Your task to perform on an android device: Open Youtube and go to "Your channel" Image 0: 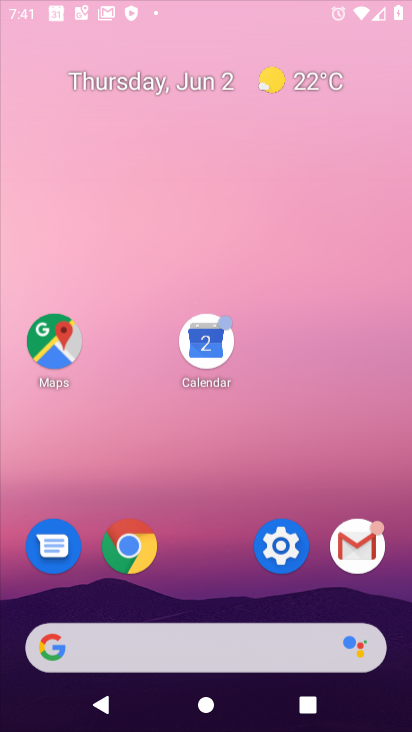
Step 0: click (271, 544)
Your task to perform on an android device: Open Youtube and go to "Your channel" Image 1: 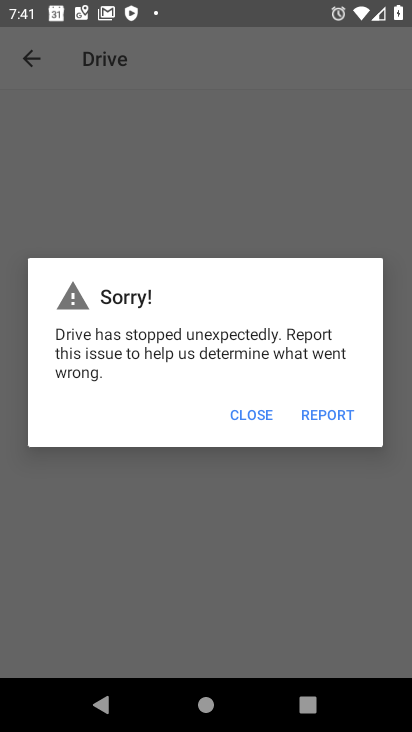
Step 1: press home button
Your task to perform on an android device: Open Youtube and go to "Your channel" Image 2: 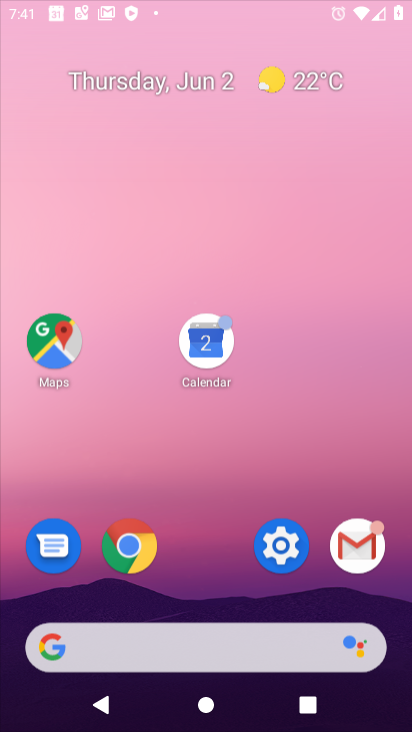
Step 2: press home button
Your task to perform on an android device: Open Youtube and go to "Your channel" Image 3: 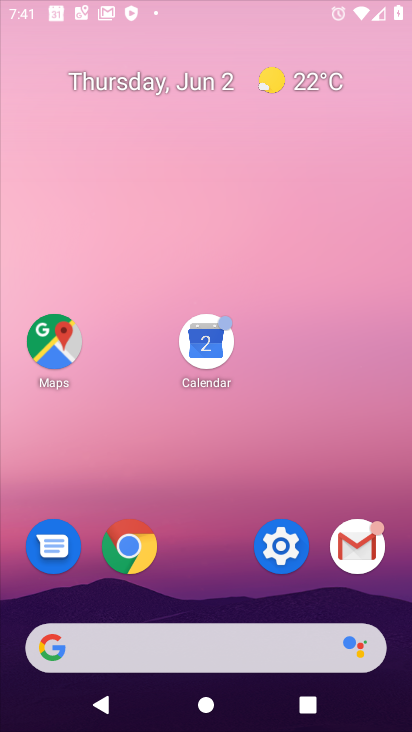
Step 3: click (254, 412)
Your task to perform on an android device: Open Youtube and go to "Your channel" Image 4: 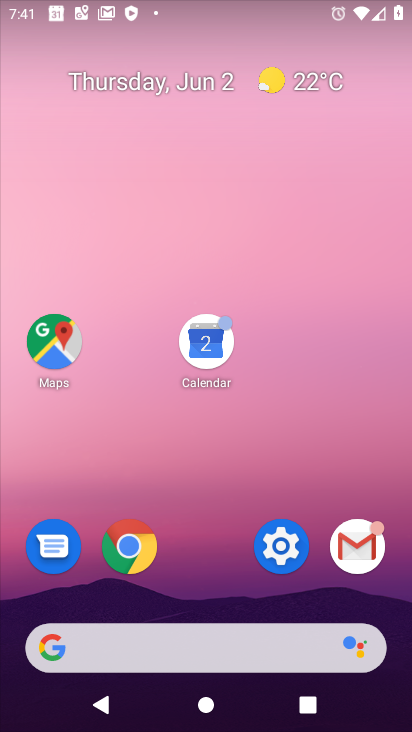
Step 4: drag from (239, 597) to (265, 269)
Your task to perform on an android device: Open Youtube and go to "Your channel" Image 5: 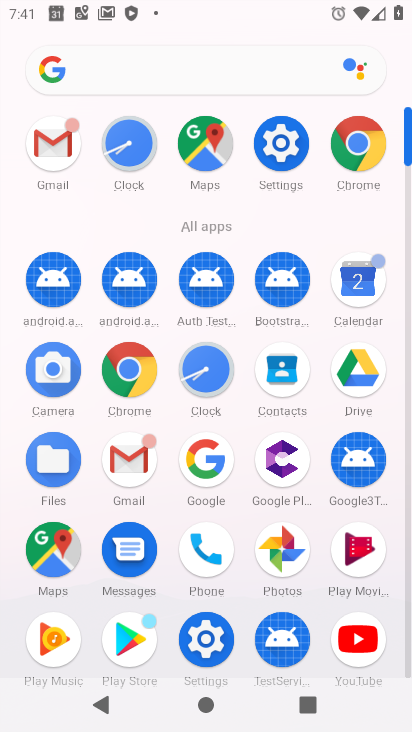
Step 5: click (363, 640)
Your task to perform on an android device: Open Youtube and go to "Your channel" Image 6: 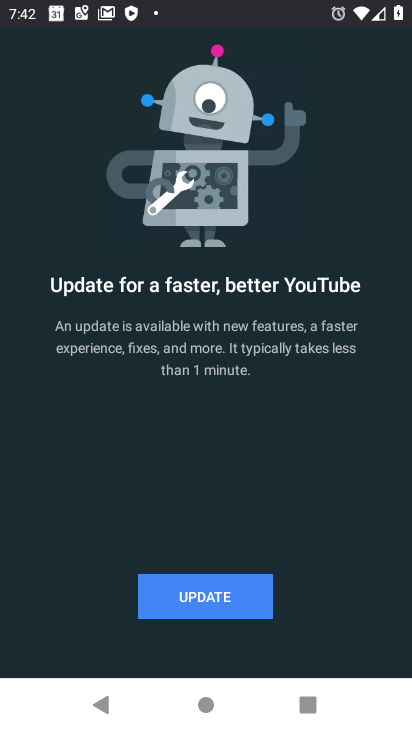
Step 6: click (214, 614)
Your task to perform on an android device: Open Youtube and go to "Your channel" Image 7: 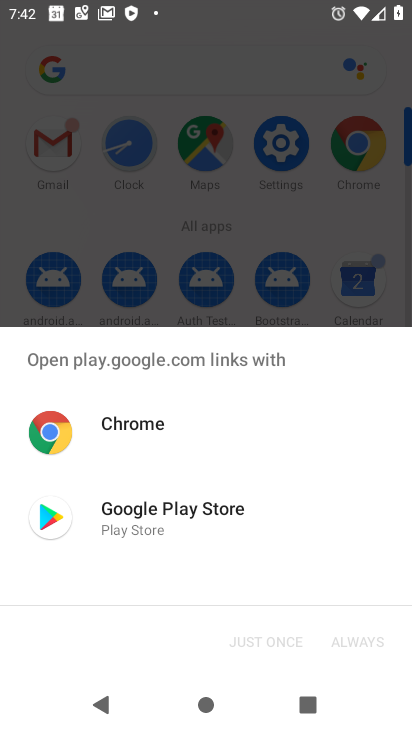
Step 7: click (161, 533)
Your task to perform on an android device: Open Youtube and go to "Your channel" Image 8: 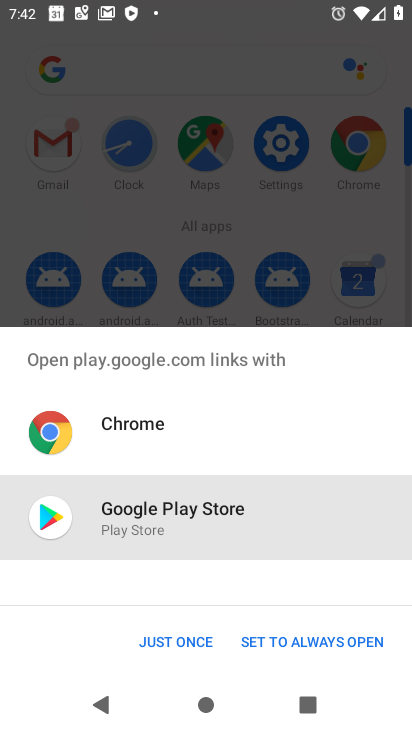
Step 8: click (177, 643)
Your task to perform on an android device: Open Youtube and go to "Your channel" Image 9: 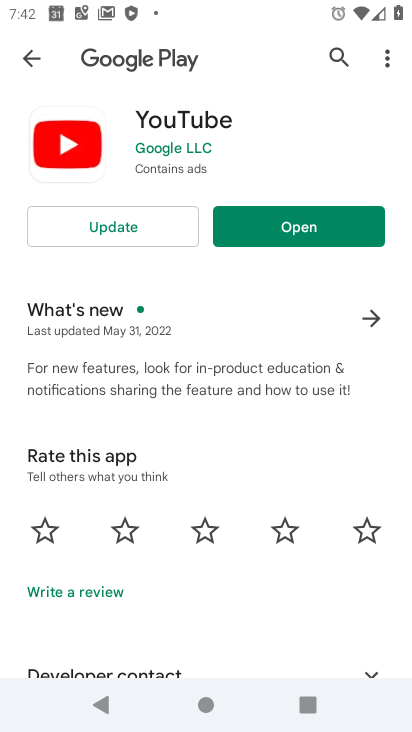
Step 9: click (116, 226)
Your task to perform on an android device: Open Youtube and go to "Your channel" Image 10: 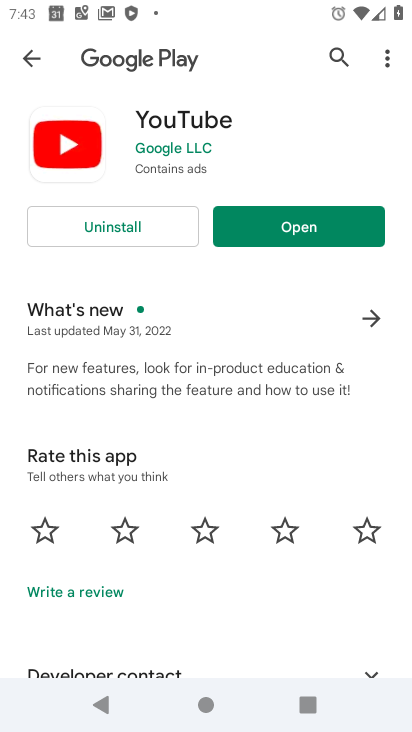
Step 10: click (311, 224)
Your task to perform on an android device: Open Youtube and go to "Your channel" Image 11: 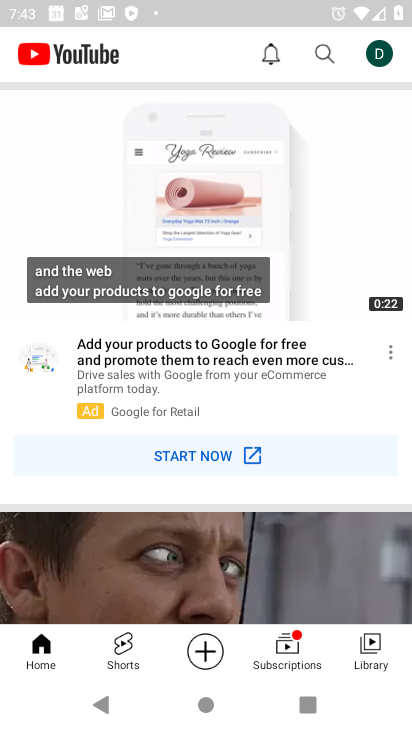
Step 11: click (380, 55)
Your task to perform on an android device: Open Youtube and go to "Your channel" Image 12: 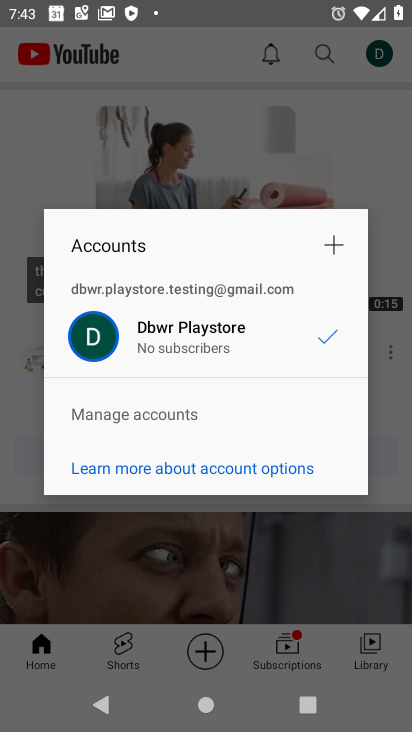
Step 12: click (382, 47)
Your task to perform on an android device: Open Youtube and go to "Your channel" Image 13: 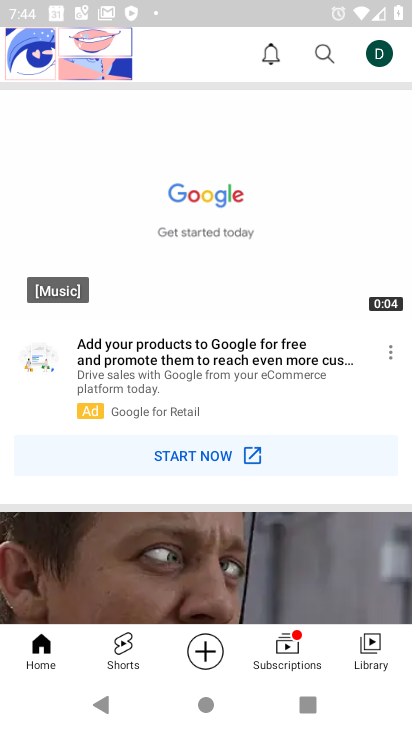
Step 13: click (368, 61)
Your task to perform on an android device: Open Youtube and go to "Your channel" Image 14: 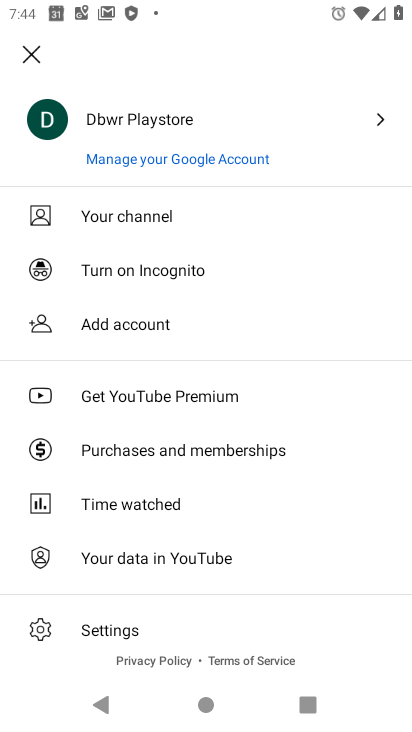
Step 14: click (379, 49)
Your task to perform on an android device: Open Youtube and go to "Your channel" Image 15: 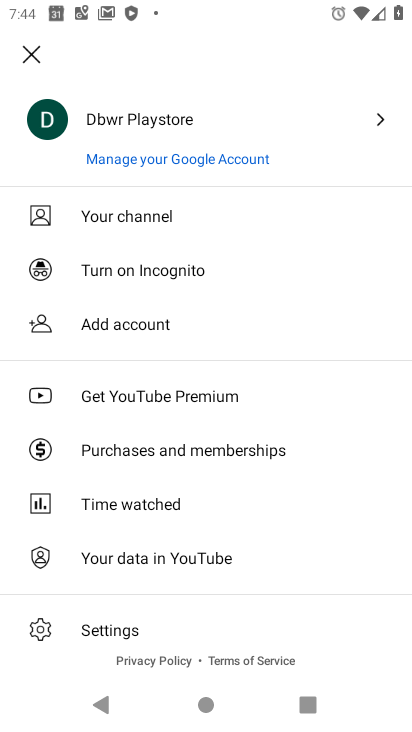
Step 15: click (376, 55)
Your task to perform on an android device: Open Youtube and go to "Your channel" Image 16: 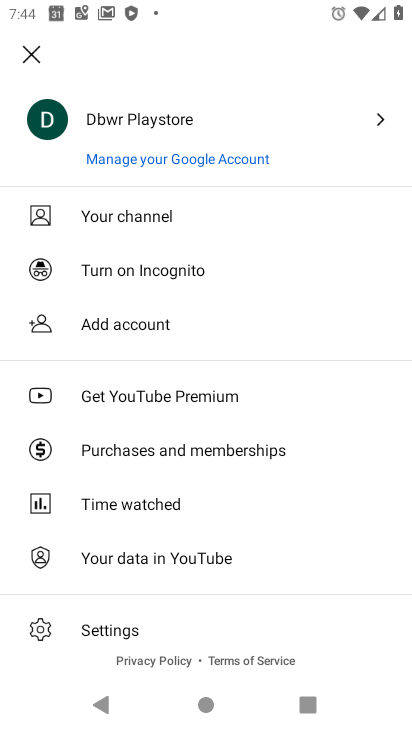
Step 16: click (283, 143)
Your task to perform on an android device: Open Youtube and go to "Your channel" Image 17: 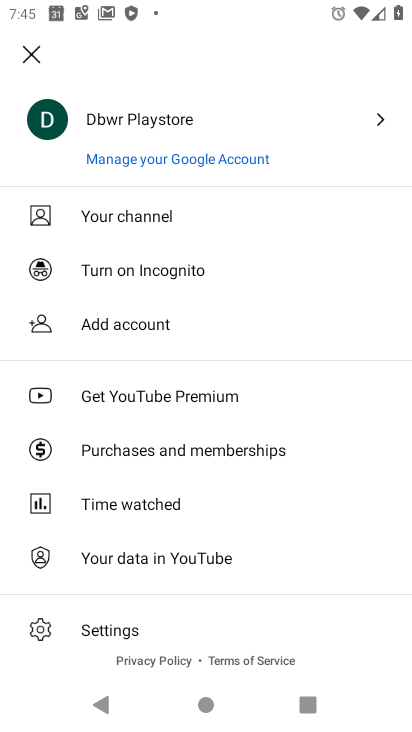
Step 17: task complete